Your task to perform on an android device: What is the news today? Image 0: 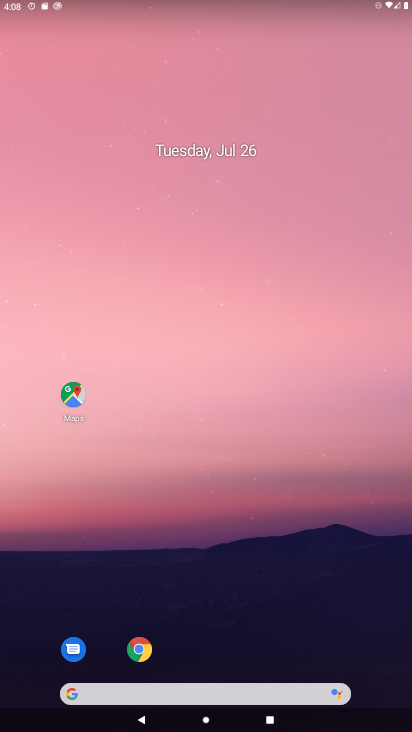
Step 0: drag from (299, 438) to (227, 160)
Your task to perform on an android device: What is the news today? Image 1: 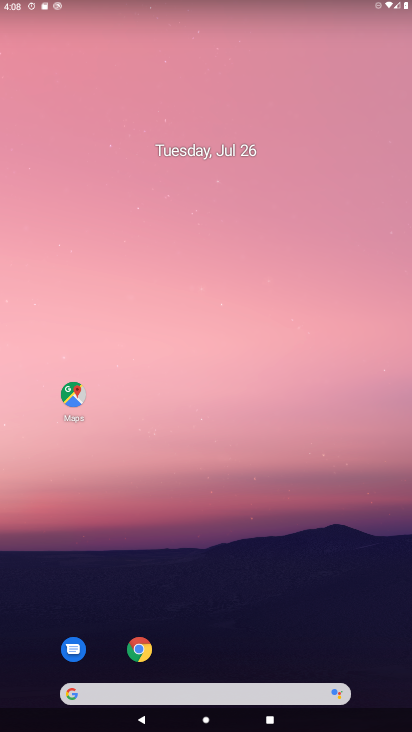
Step 1: drag from (354, 605) to (195, 40)
Your task to perform on an android device: What is the news today? Image 2: 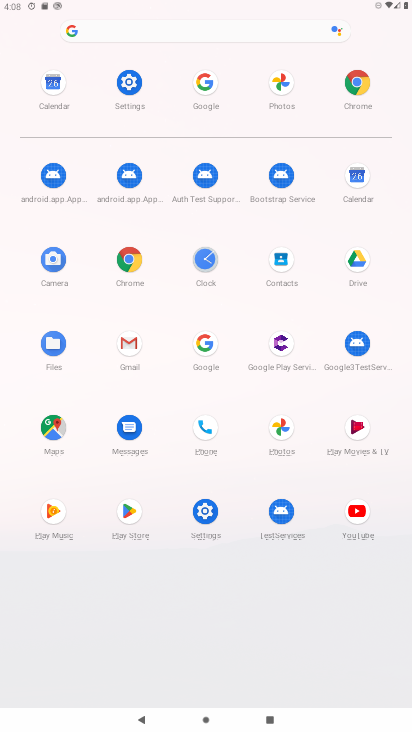
Step 2: click (210, 343)
Your task to perform on an android device: What is the news today? Image 3: 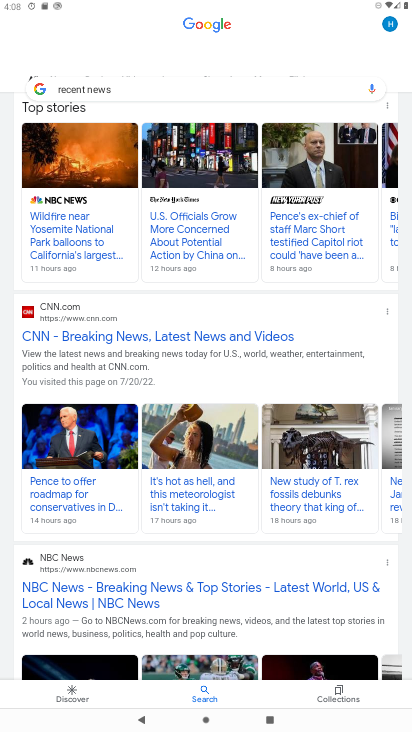
Step 3: press back button
Your task to perform on an android device: What is the news today? Image 4: 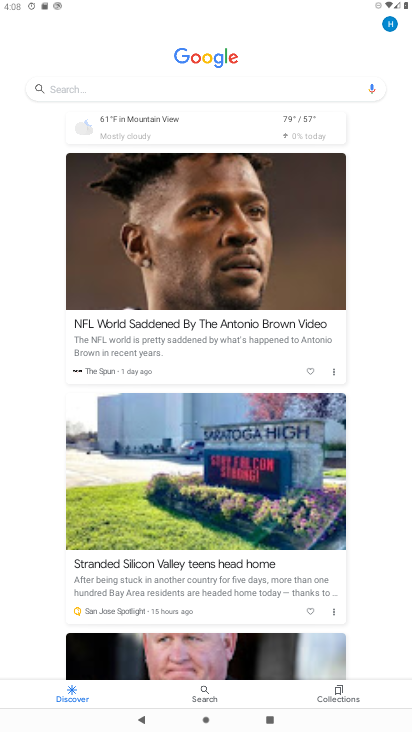
Step 4: click (62, 92)
Your task to perform on an android device: What is the news today? Image 5: 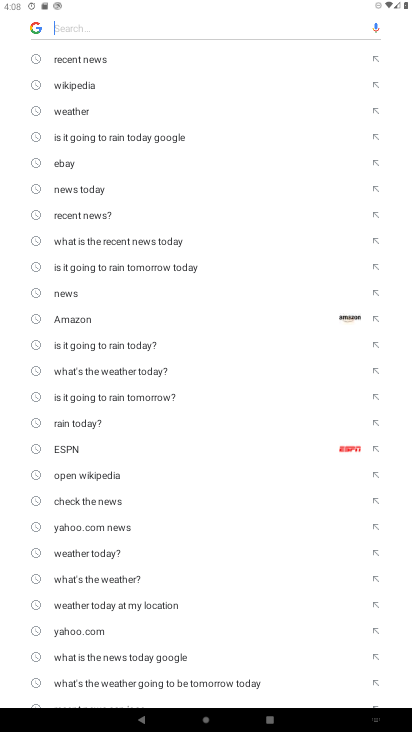
Step 5: type "What is the news today?"
Your task to perform on an android device: What is the news today? Image 6: 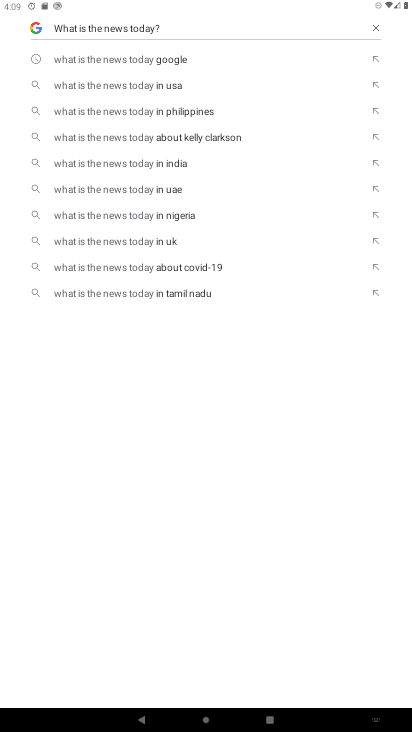
Step 6: click (106, 57)
Your task to perform on an android device: What is the news today? Image 7: 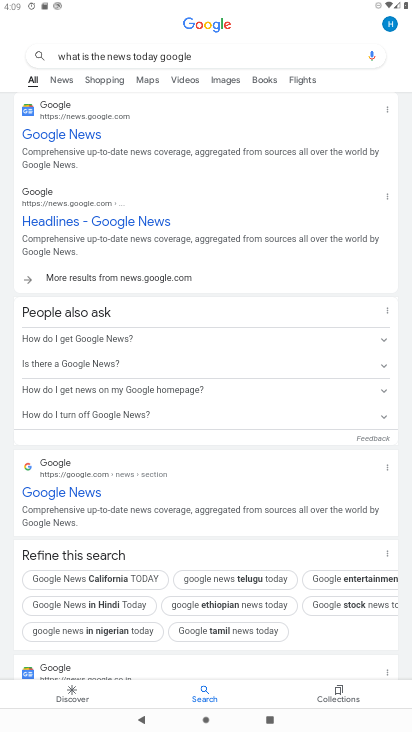
Step 7: task complete